Your task to perform on an android device: Open Google Maps Image 0: 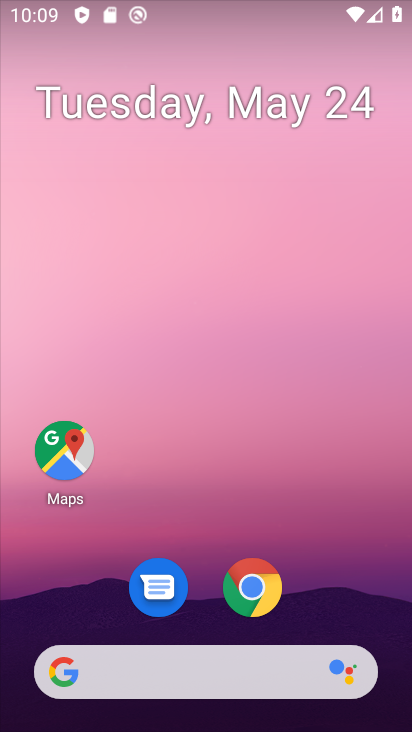
Step 0: press home button
Your task to perform on an android device: Open Google Maps Image 1: 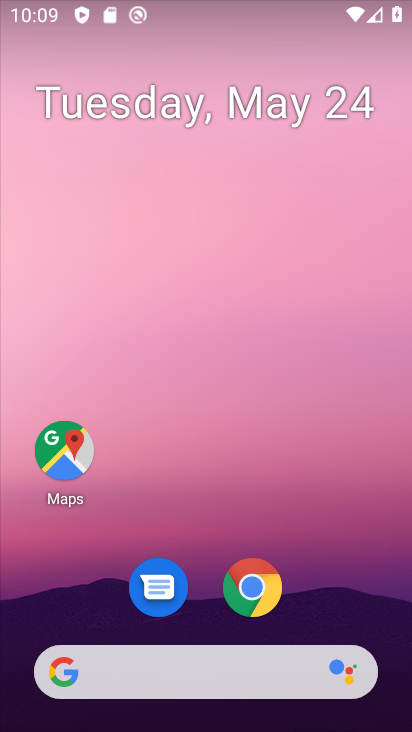
Step 1: click (52, 487)
Your task to perform on an android device: Open Google Maps Image 2: 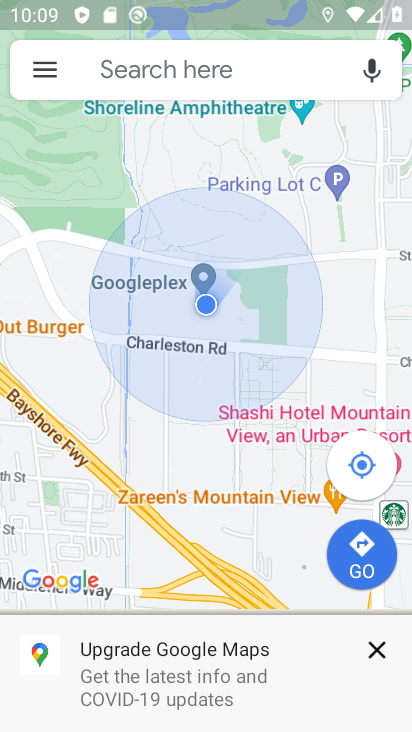
Step 2: task complete